Your task to perform on an android device: allow notifications from all sites in the chrome app Image 0: 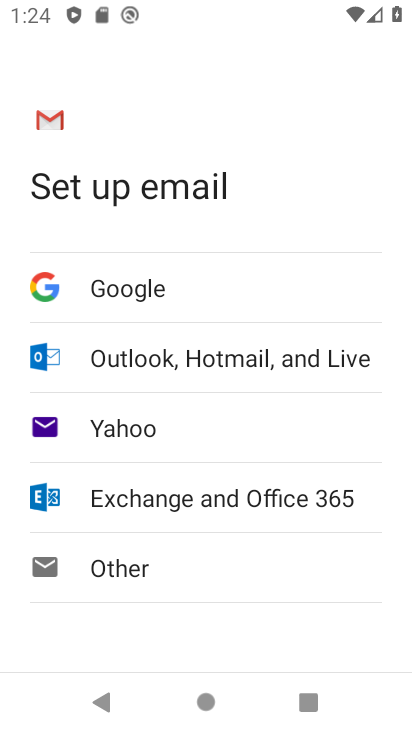
Step 0: press home button
Your task to perform on an android device: allow notifications from all sites in the chrome app Image 1: 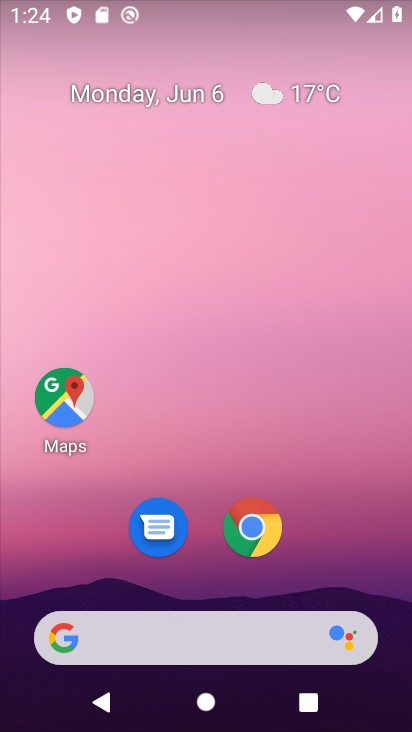
Step 1: click (258, 539)
Your task to perform on an android device: allow notifications from all sites in the chrome app Image 2: 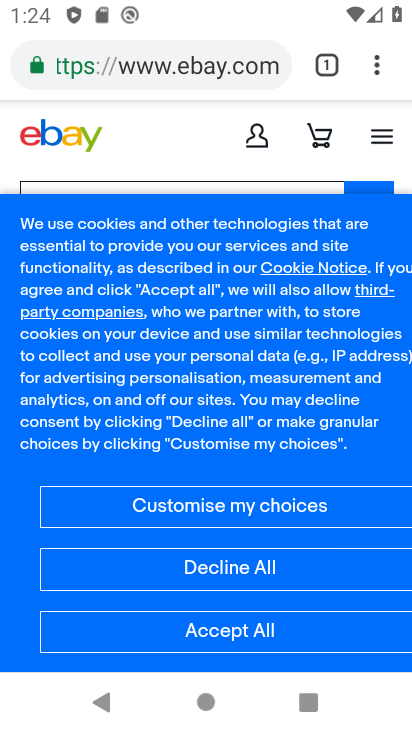
Step 2: click (376, 71)
Your task to perform on an android device: allow notifications from all sites in the chrome app Image 3: 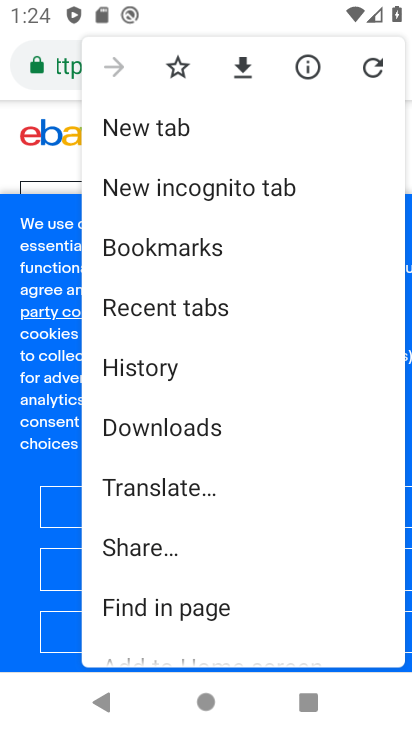
Step 3: drag from (165, 629) to (195, 232)
Your task to perform on an android device: allow notifications from all sites in the chrome app Image 4: 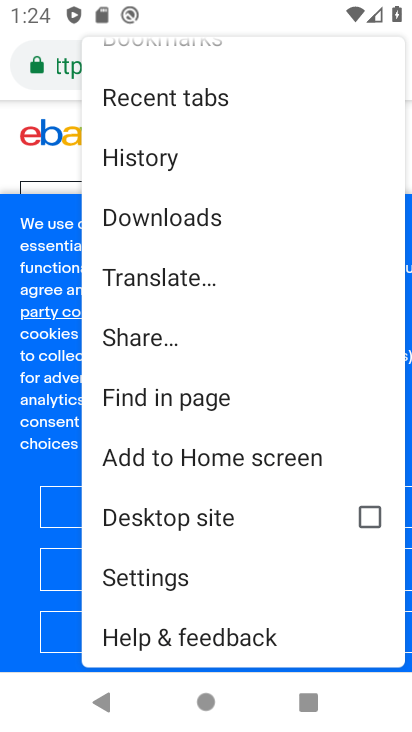
Step 4: click (137, 575)
Your task to perform on an android device: allow notifications from all sites in the chrome app Image 5: 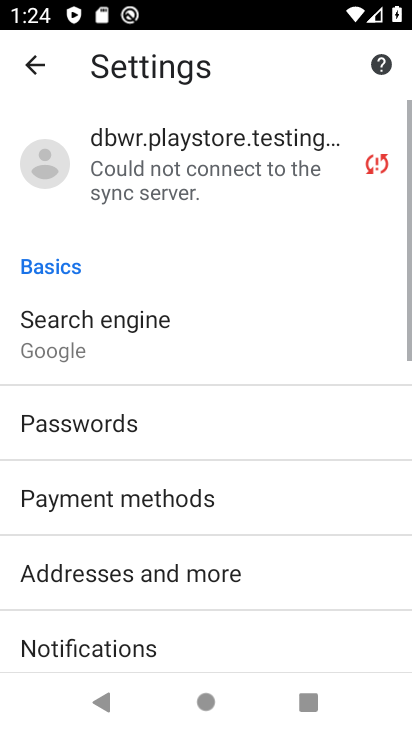
Step 5: drag from (194, 649) to (184, 285)
Your task to perform on an android device: allow notifications from all sites in the chrome app Image 6: 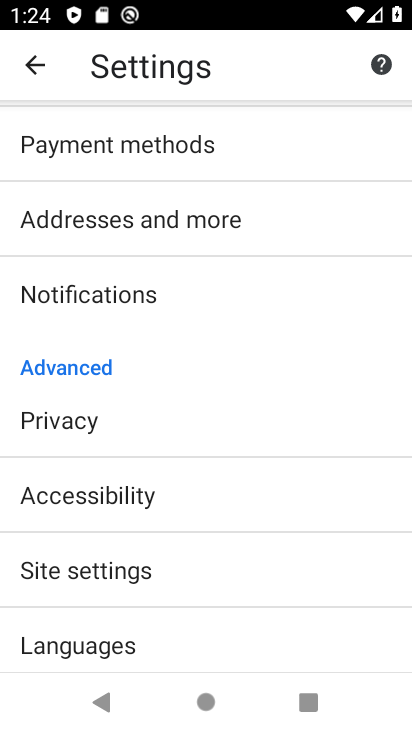
Step 6: click (120, 567)
Your task to perform on an android device: allow notifications from all sites in the chrome app Image 7: 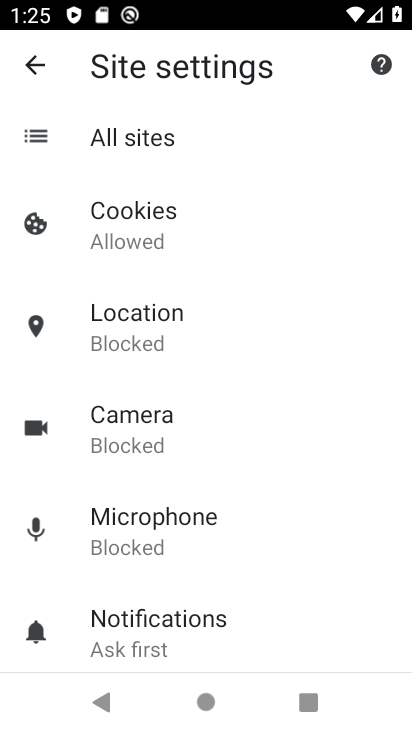
Step 7: click (150, 627)
Your task to perform on an android device: allow notifications from all sites in the chrome app Image 8: 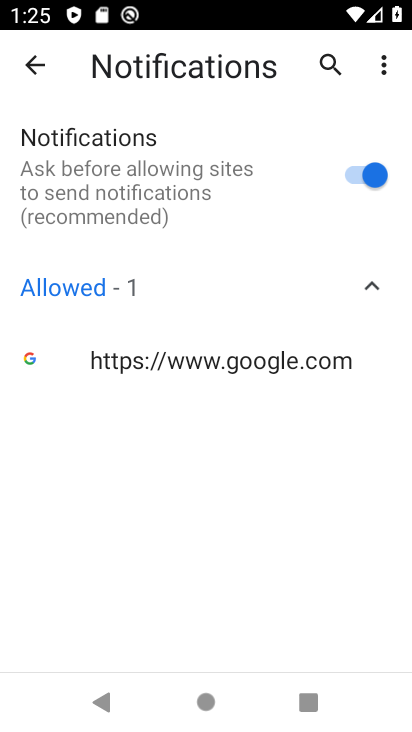
Step 8: task complete